Your task to perform on an android device: open a new tab in the chrome app Image 0: 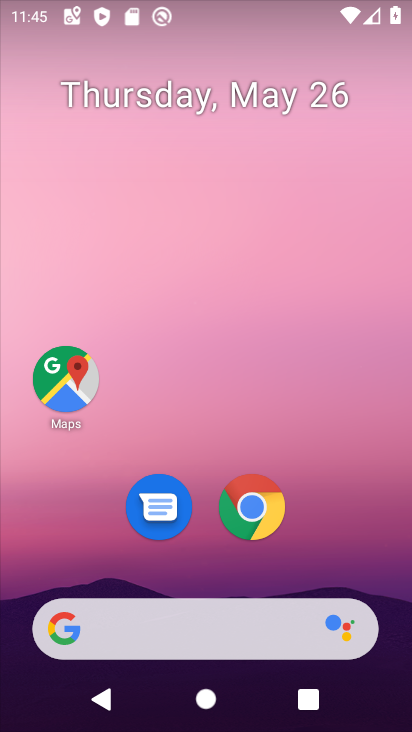
Step 0: click (256, 507)
Your task to perform on an android device: open a new tab in the chrome app Image 1: 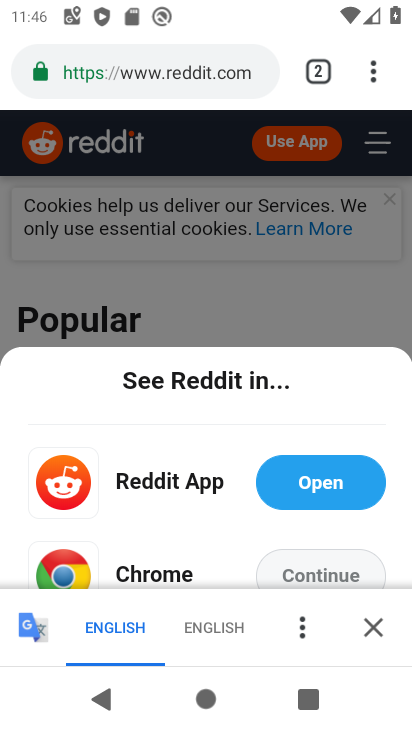
Step 1: drag from (377, 48) to (101, 139)
Your task to perform on an android device: open a new tab in the chrome app Image 2: 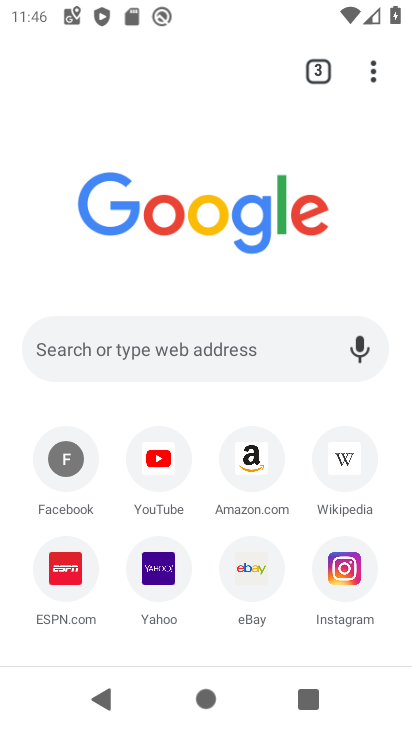
Step 2: click (392, 213)
Your task to perform on an android device: open a new tab in the chrome app Image 3: 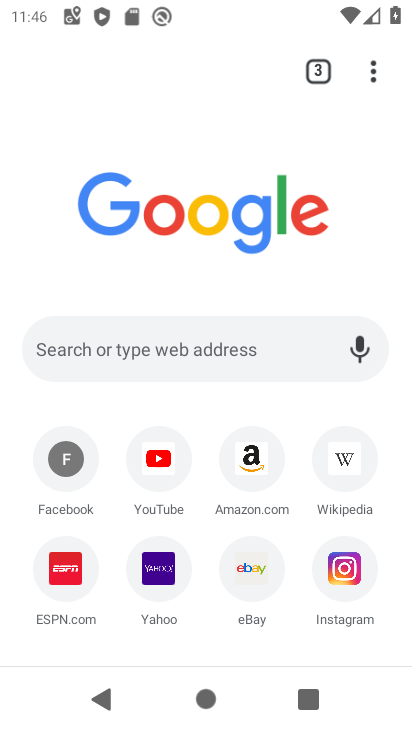
Step 3: task complete